Your task to perform on an android device: toggle improve location accuracy Image 0: 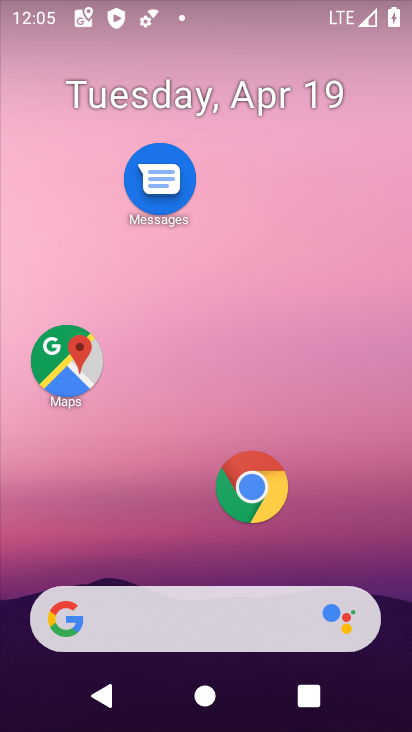
Step 0: drag from (173, 520) to (232, 6)
Your task to perform on an android device: toggle improve location accuracy Image 1: 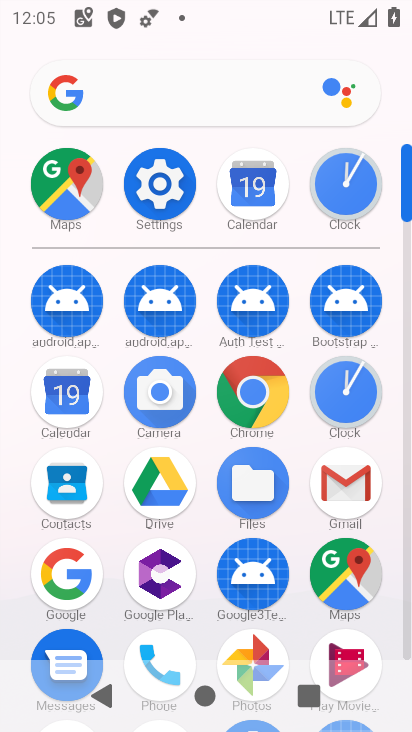
Step 1: click (163, 179)
Your task to perform on an android device: toggle improve location accuracy Image 2: 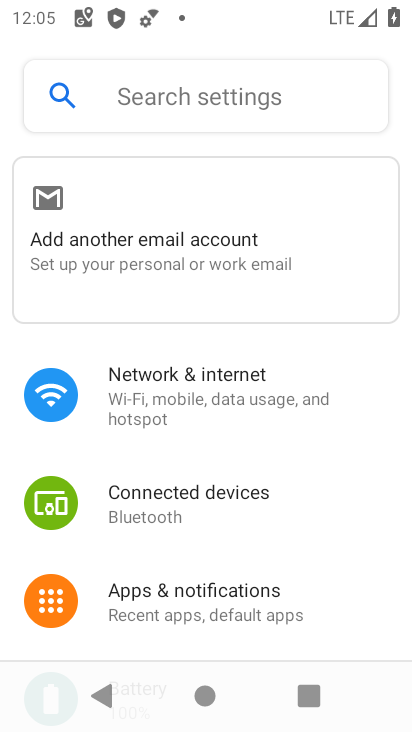
Step 2: drag from (225, 528) to (210, 91)
Your task to perform on an android device: toggle improve location accuracy Image 3: 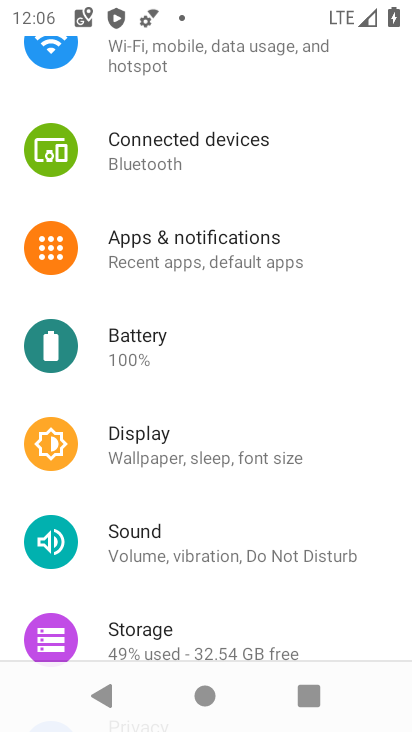
Step 3: drag from (170, 609) to (146, 164)
Your task to perform on an android device: toggle improve location accuracy Image 4: 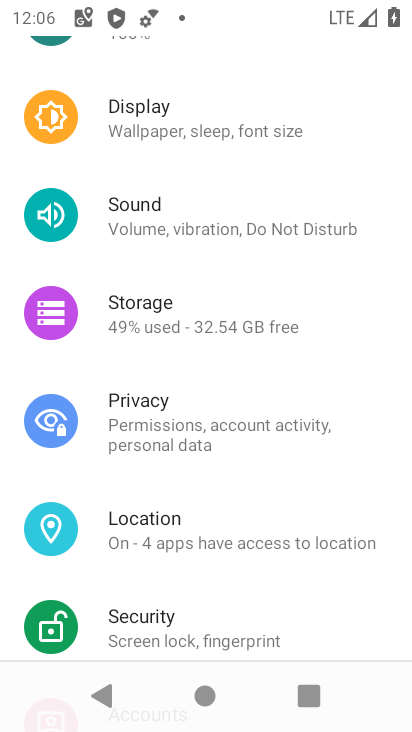
Step 4: drag from (218, 474) to (187, 203)
Your task to perform on an android device: toggle improve location accuracy Image 5: 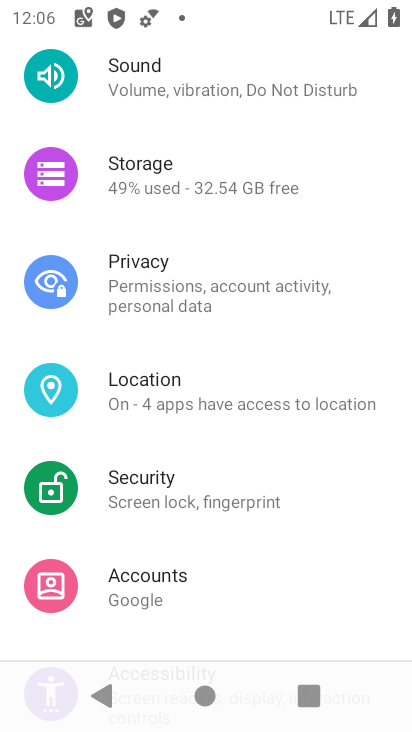
Step 5: click (132, 381)
Your task to perform on an android device: toggle improve location accuracy Image 6: 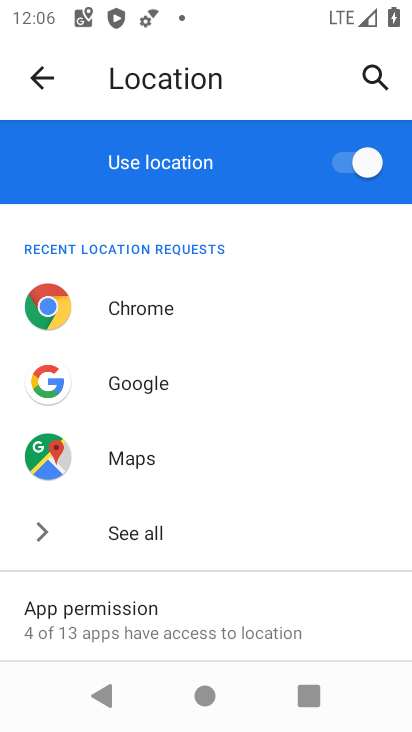
Step 6: drag from (216, 586) to (179, 168)
Your task to perform on an android device: toggle improve location accuracy Image 7: 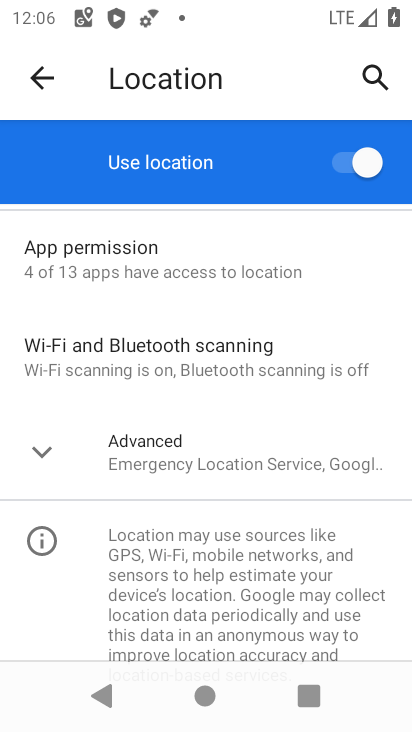
Step 7: click (124, 610)
Your task to perform on an android device: toggle improve location accuracy Image 8: 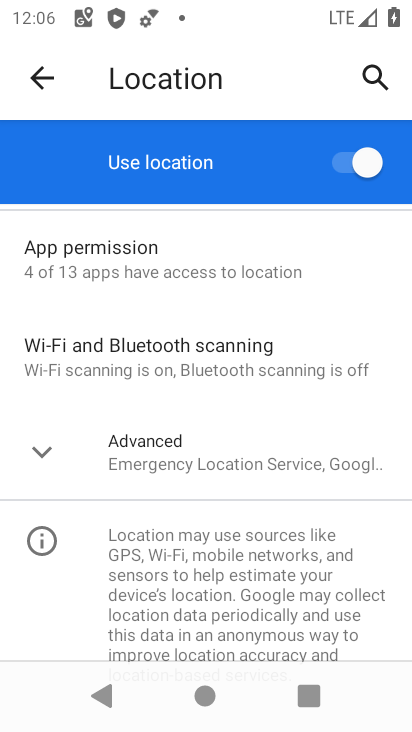
Step 8: drag from (163, 550) to (114, 163)
Your task to perform on an android device: toggle improve location accuracy Image 9: 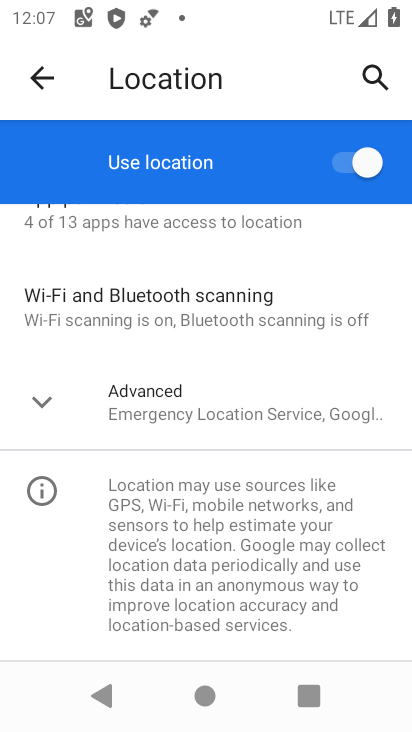
Step 9: click (69, 402)
Your task to perform on an android device: toggle improve location accuracy Image 10: 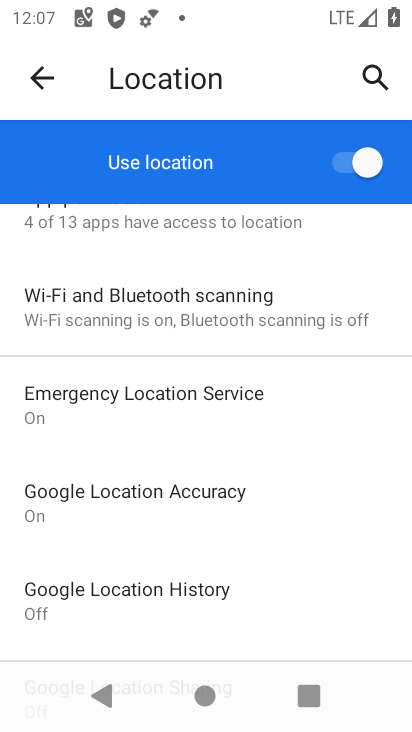
Step 10: click (128, 485)
Your task to perform on an android device: toggle improve location accuracy Image 11: 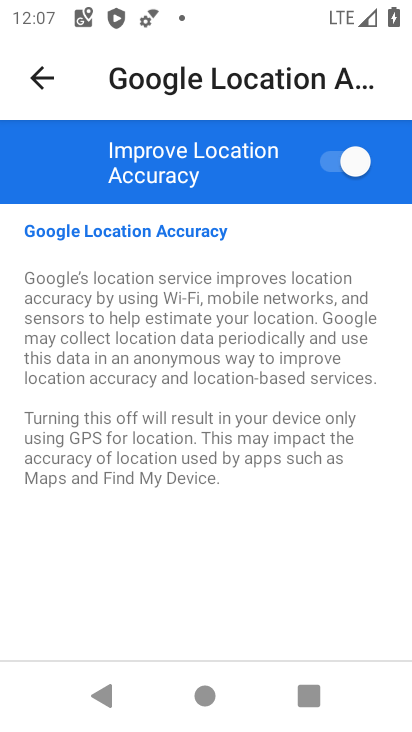
Step 11: click (343, 154)
Your task to perform on an android device: toggle improve location accuracy Image 12: 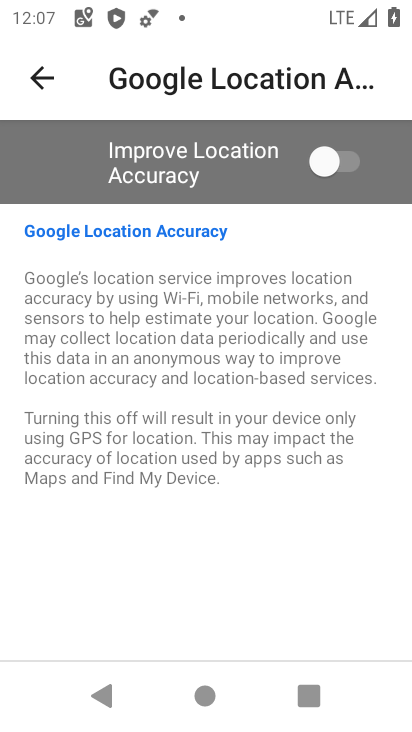
Step 12: task complete